Your task to perform on an android device: Do I have any events this weekend? Image 0: 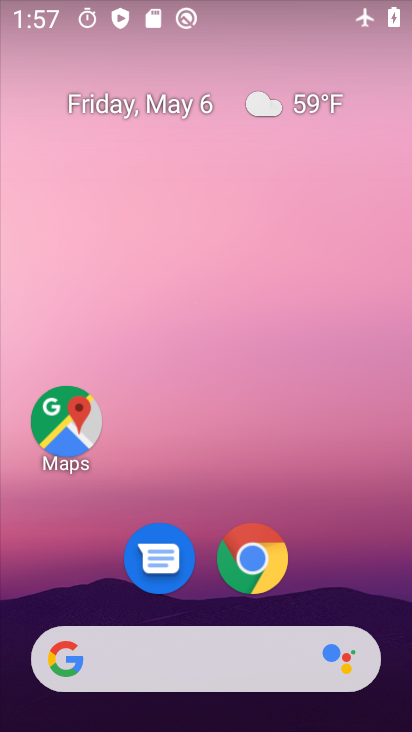
Step 0: drag from (215, 725) to (175, 207)
Your task to perform on an android device: Do I have any events this weekend? Image 1: 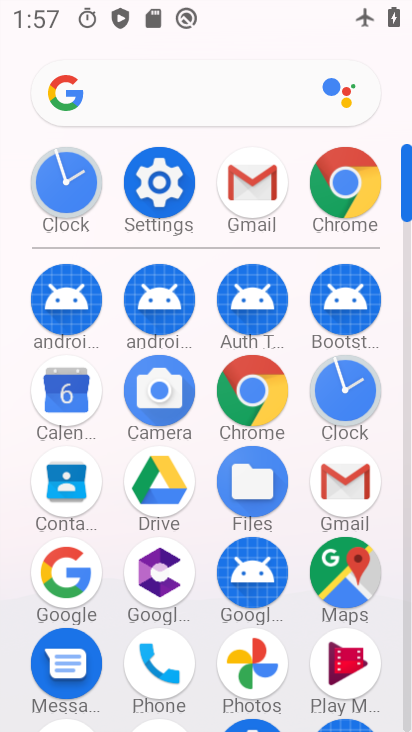
Step 1: click (62, 395)
Your task to perform on an android device: Do I have any events this weekend? Image 2: 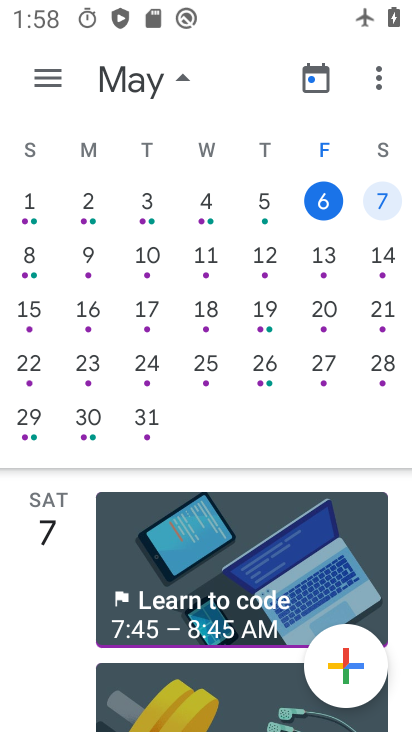
Step 2: click (380, 200)
Your task to perform on an android device: Do I have any events this weekend? Image 3: 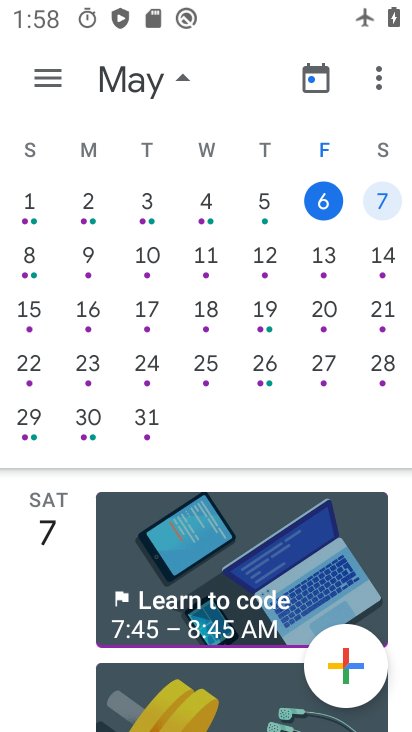
Step 3: click (42, 71)
Your task to perform on an android device: Do I have any events this weekend? Image 4: 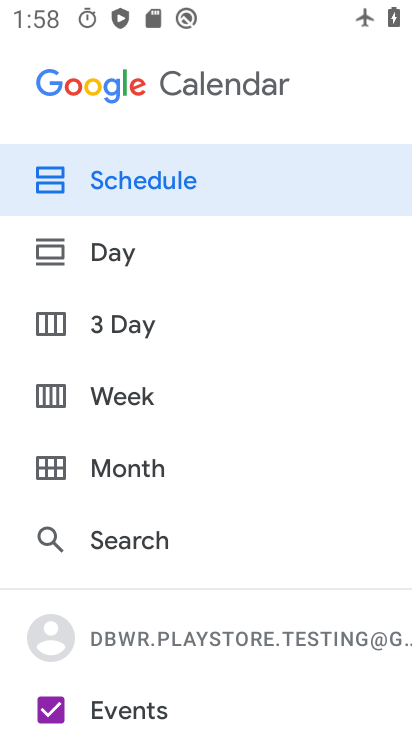
Step 4: drag from (155, 597) to (153, 402)
Your task to perform on an android device: Do I have any events this weekend? Image 5: 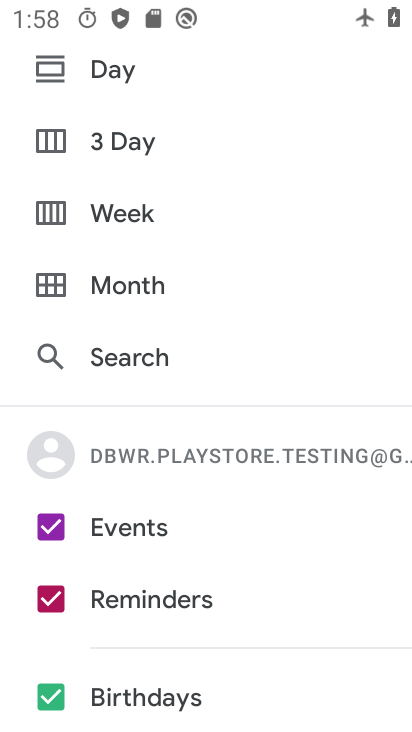
Step 5: click (124, 213)
Your task to perform on an android device: Do I have any events this weekend? Image 6: 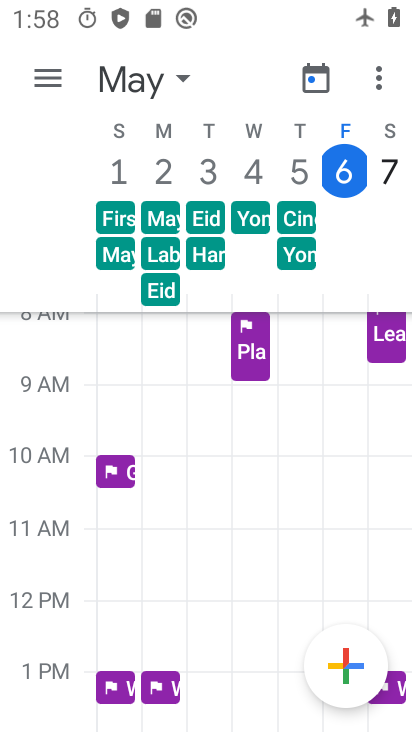
Step 6: click (384, 161)
Your task to perform on an android device: Do I have any events this weekend? Image 7: 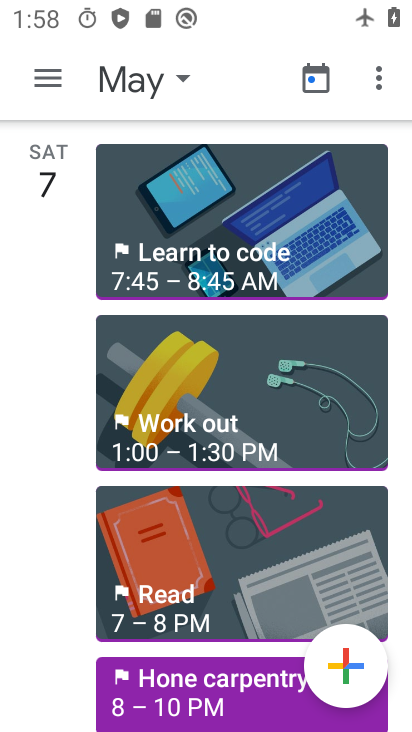
Step 7: task complete